Your task to perform on an android device: Show me popular games on the Play Store Image 0: 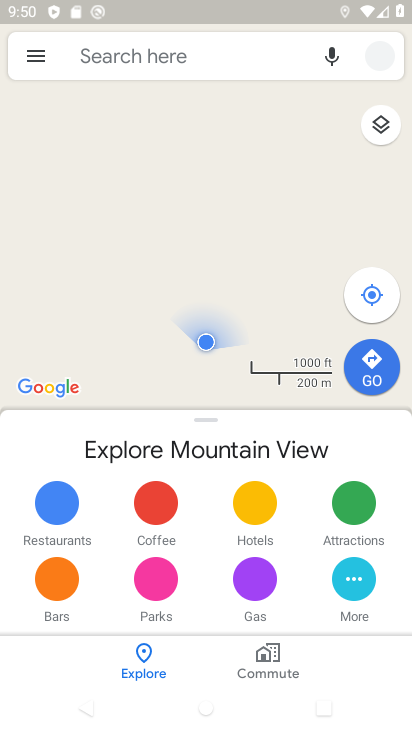
Step 0: press home button
Your task to perform on an android device: Show me popular games on the Play Store Image 1: 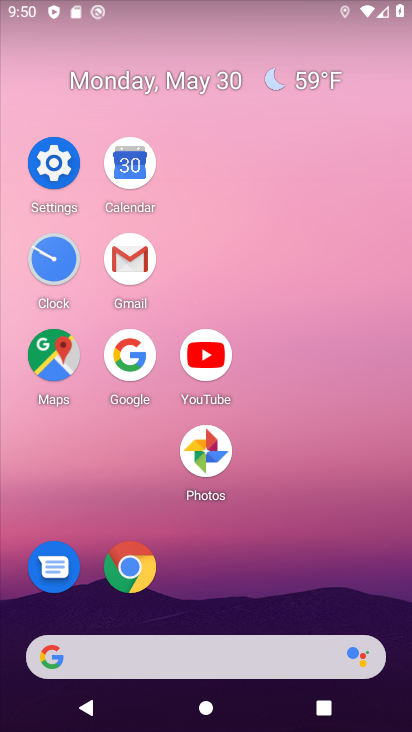
Step 1: drag from (236, 571) to (214, 173)
Your task to perform on an android device: Show me popular games on the Play Store Image 2: 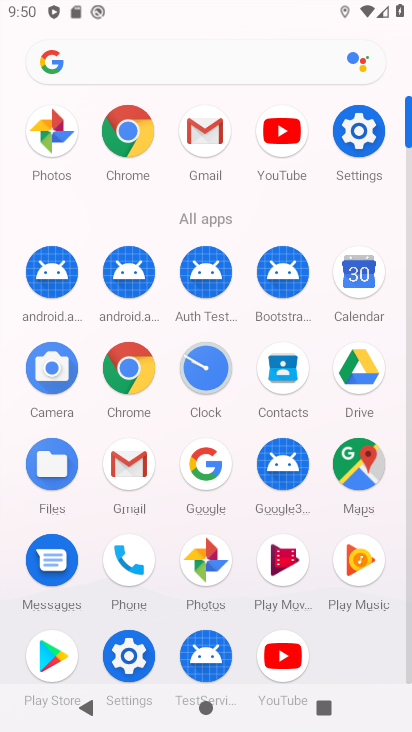
Step 2: click (66, 656)
Your task to perform on an android device: Show me popular games on the Play Store Image 3: 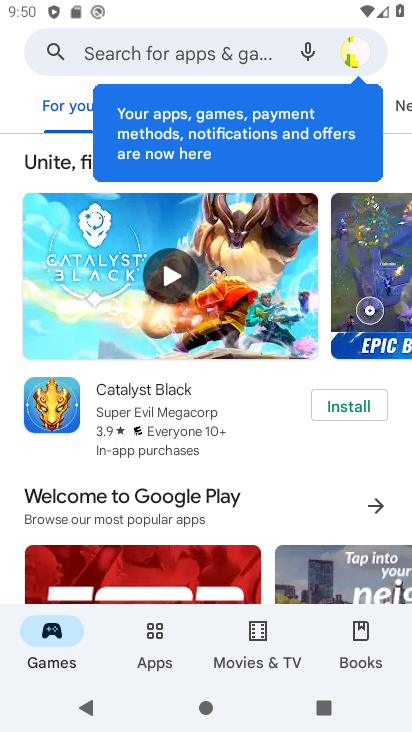
Step 3: drag from (223, 620) to (235, 349)
Your task to perform on an android device: Show me popular games on the Play Store Image 4: 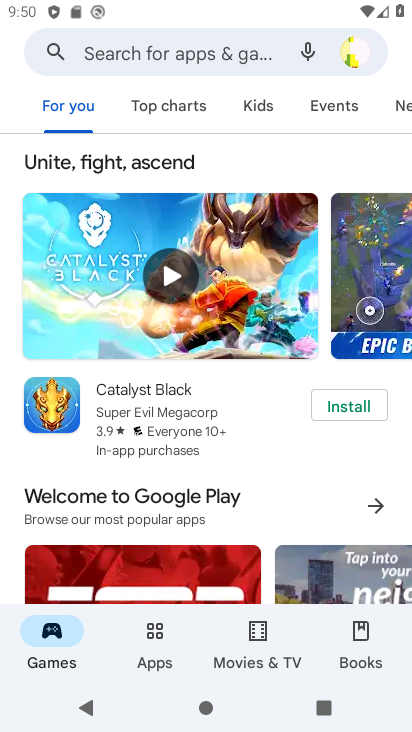
Step 4: drag from (302, 529) to (282, 186)
Your task to perform on an android device: Show me popular games on the Play Store Image 5: 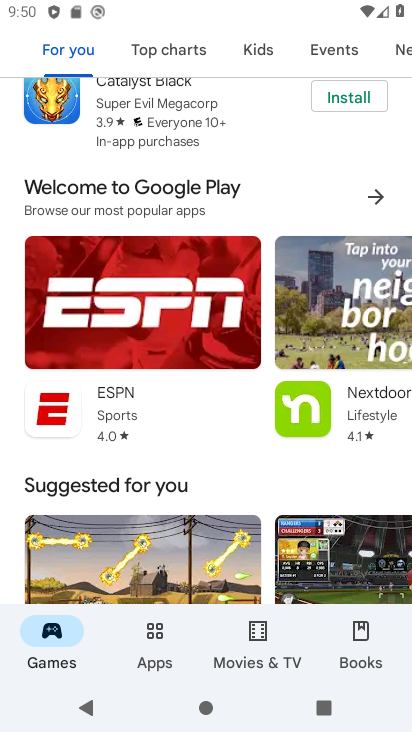
Step 5: drag from (289, 491) to (319, 194)
Your task to perform on an android device: Show me popular games on the Play Store Image 6: 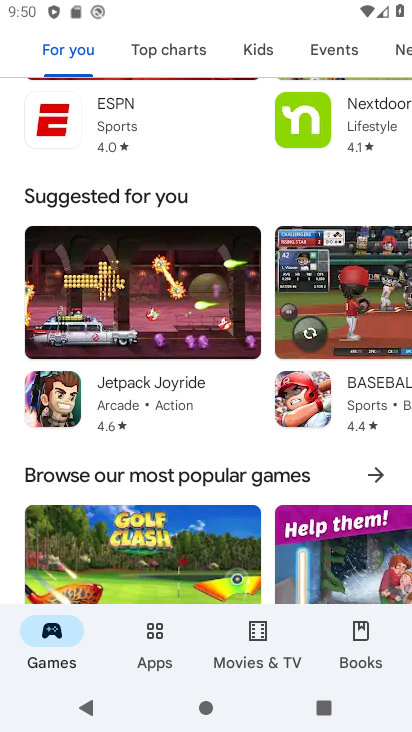
Step 6: click (308, 478)
Your task to perform on an android device: Show me popular games on the Play Store Image 7: 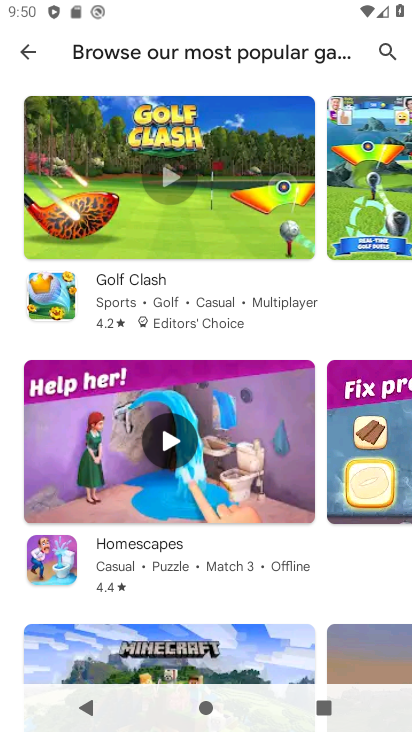
Step 7: task complete